Your task to perform on an android device: Search for vegetarian restaurants on Maps Image 0: 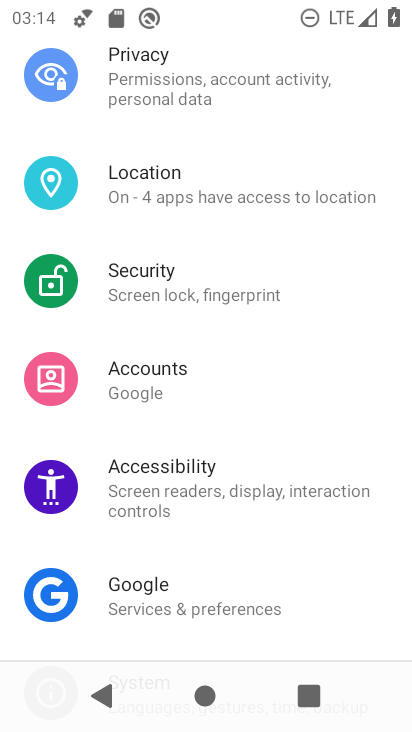
Step 0: press home button
Your task to perform on an android device: Search for vegetarian restaurants on Maps Image 1: 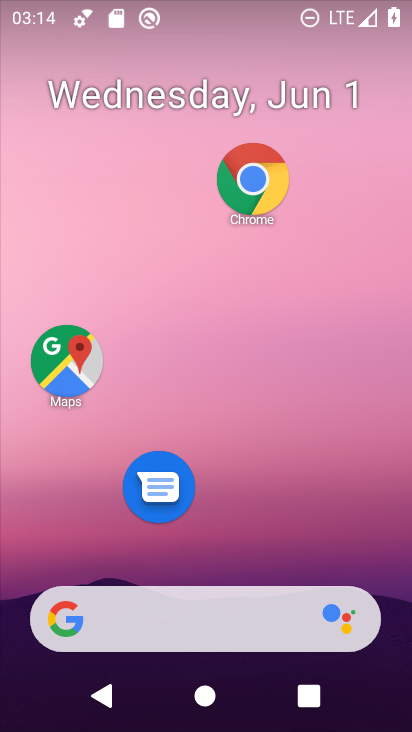
Step 1: click (69, 348)
Your task to perform on an android device: Search for vegetarian restaurants on Maps Image 2: 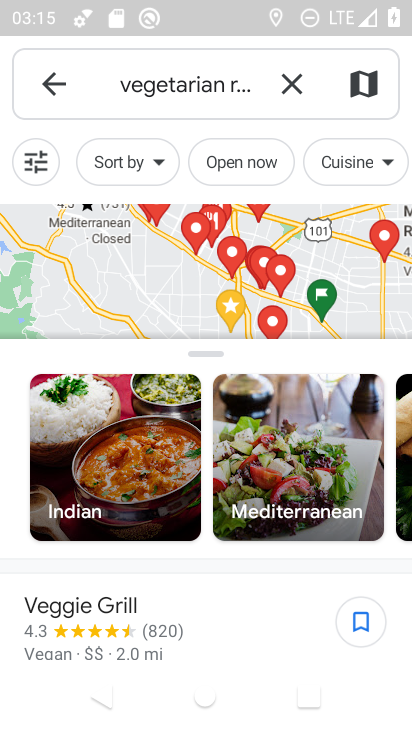
Step 2: task complete